Your task to perform on an android device: Go to accessibility settings Image 0: 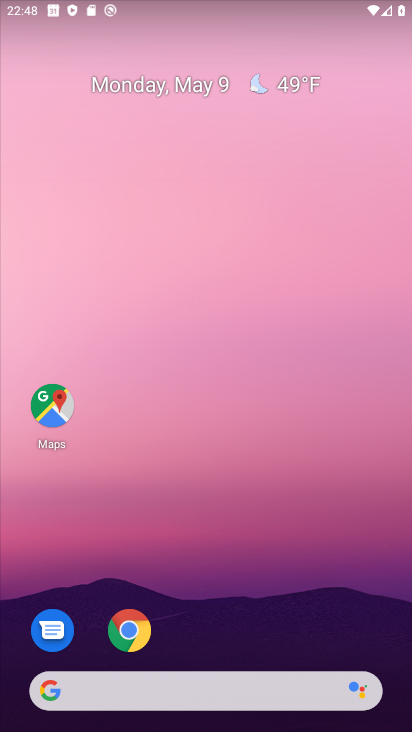
Step 0: drag from (223, 607) to (239, 176)
Your task to perform on an android device: Go to accessibility settings Image 1: 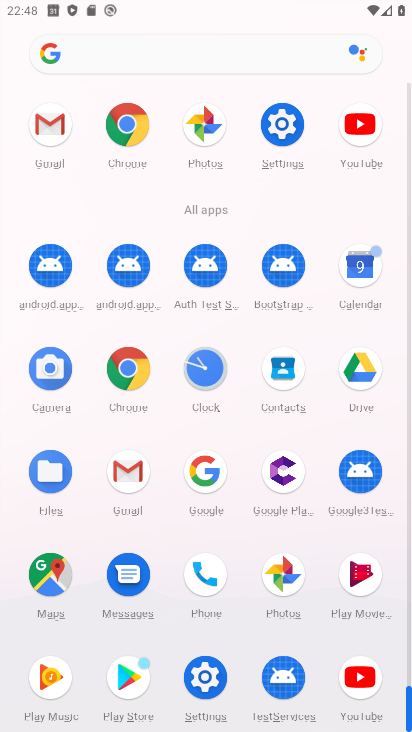
Step 1: click (270, 131)
Your task to perform on an android device: Go to accessibility settings Image 2: 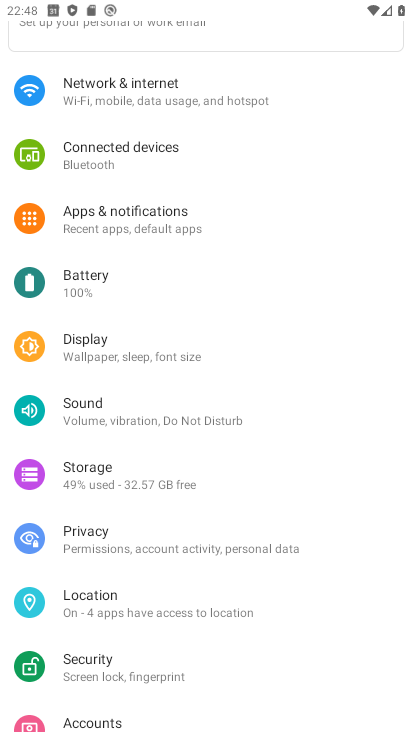
Step 2: drag from (159, 671) to (163, 423)
Your task to perform on an android device: Go to accessibility settings Image 3: 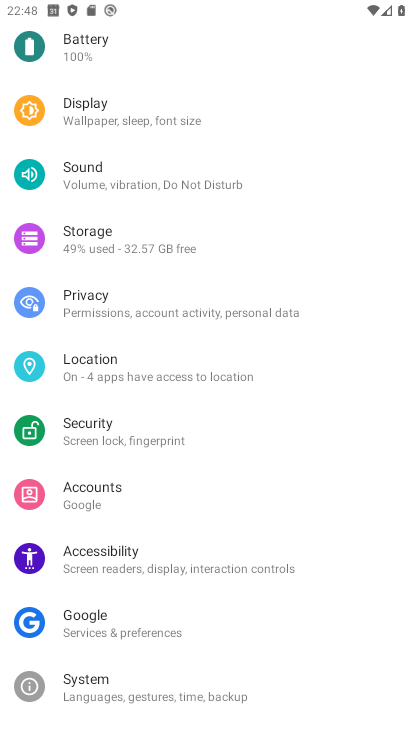
Step 3: click (76, 550)
Your task to perform on an android device: Go to accessibility settings Image 4: 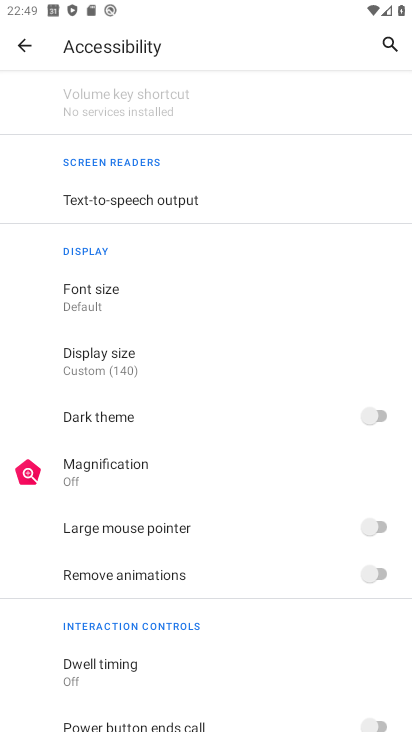
Step 4: task complete